Your task to perform on an android device: Go to battery settings Image 0: 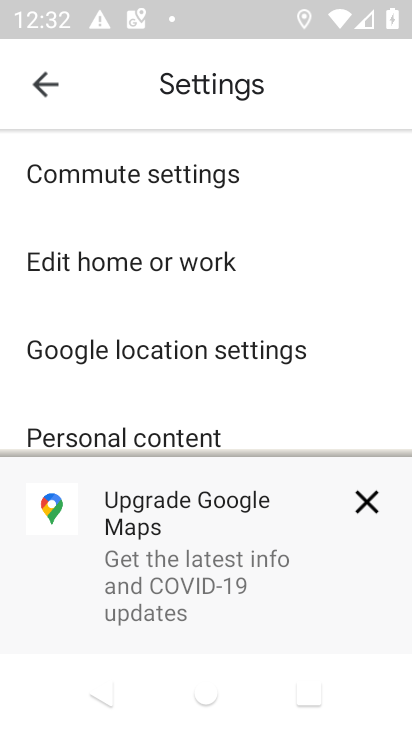
Step 0: drag from (254, 19) to (312, 398)
Your task to perform on an android device: Go to battery settings Image 1: 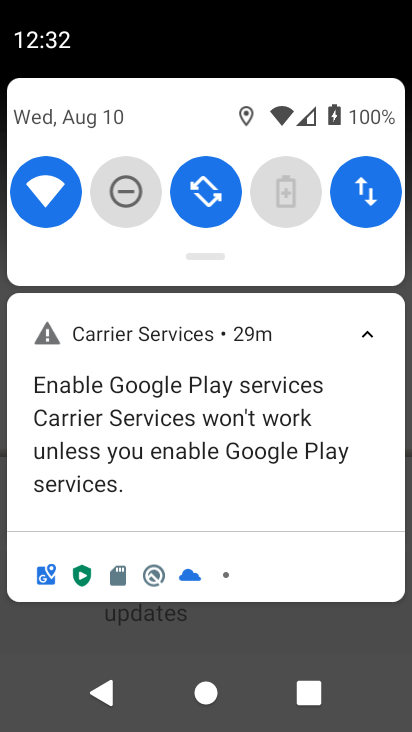
Step 1: click (299, 182)
Your task to perform on an android device: Go to battery settings Image 2: 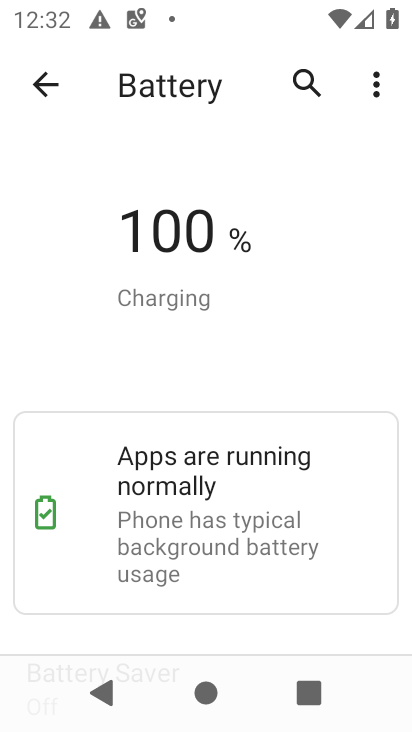
Step 2: task complete